Your task to perform on an android device: Open the phone app and click the voicemail tab. Image 0: 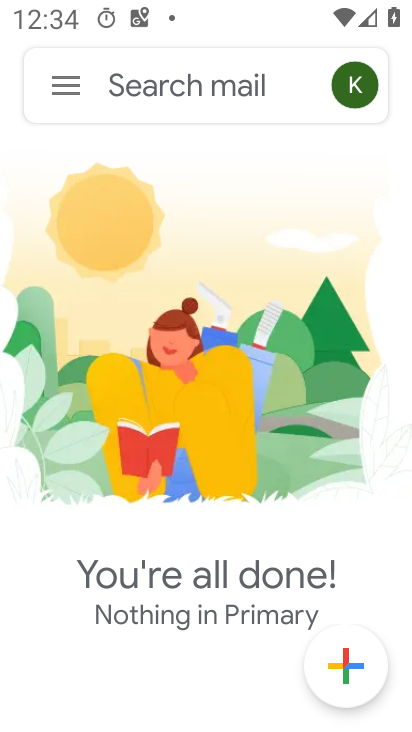
Step 0: press home button
Your task to perform on an android device: Open the phone app and click the voicemail tab. Image 1: 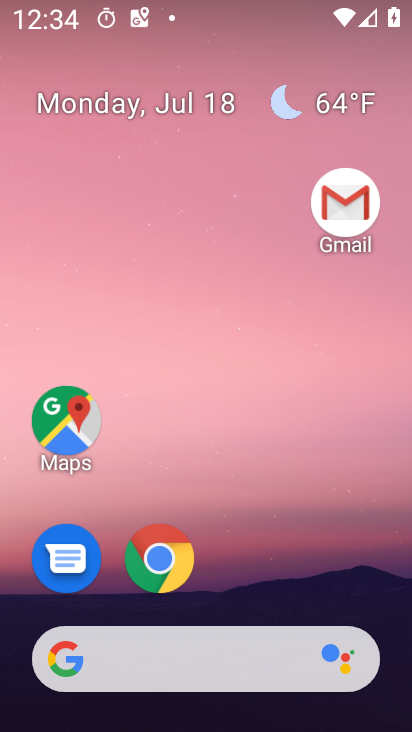
Step 1: drag from (341, 583) to (352, 104)
Your task to perform on an android device: Open the phone app and click the voicemail tab. Image 2: 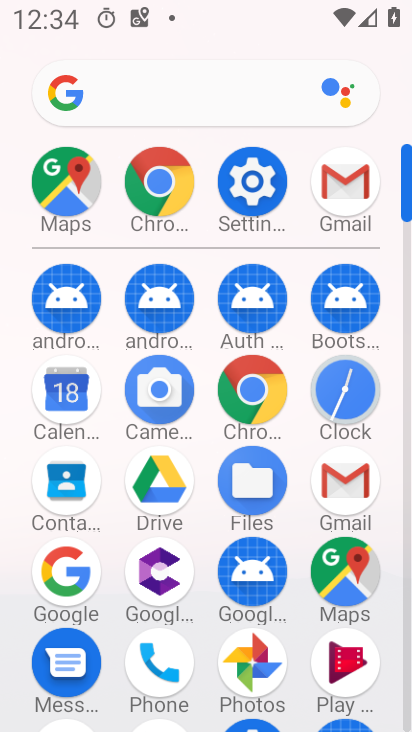
Step 2: drag from (393, 612) to (397, 371)
Your task to perform on an android device: Open the phone app and click the voicemail tab. Image 3: 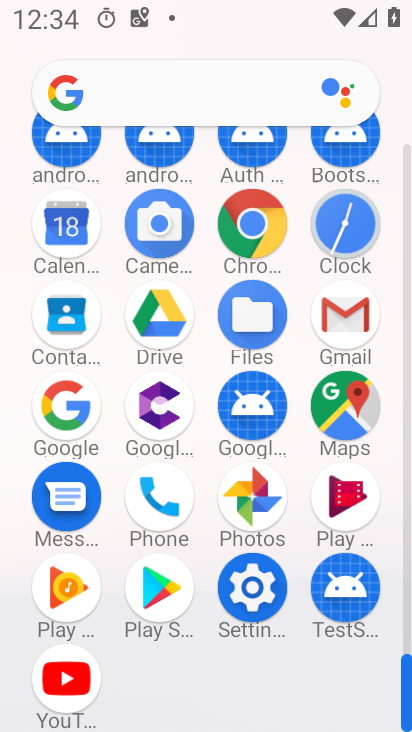
Step 3: click (155, 500)
Your task to perform on an android device: Open the phone app and click the voicemail tab. Image 4: 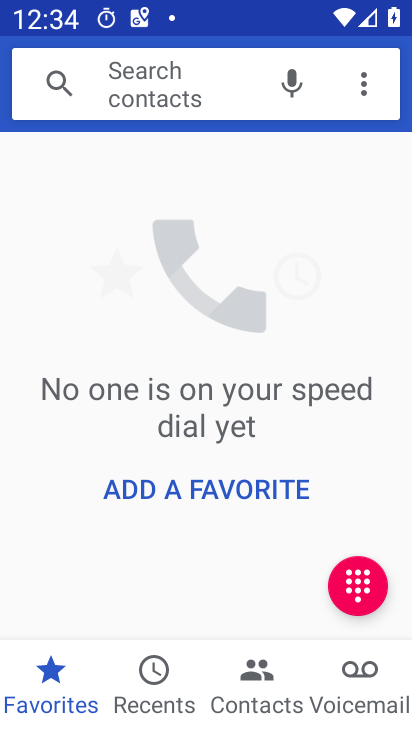
Step 4: click (359, 669)
Your task to perform on an android device: Open the phone app and click the voicemail tab. Image 5: 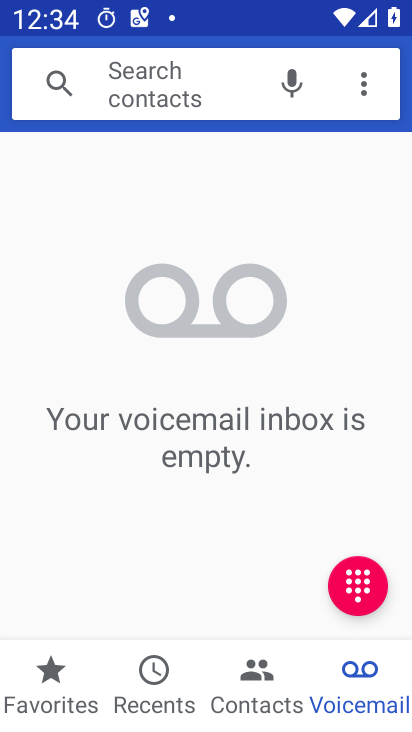
Step 5: task complete